Your task to perform on an android device: Search for vegetarian restaurants on Maps Image 0: 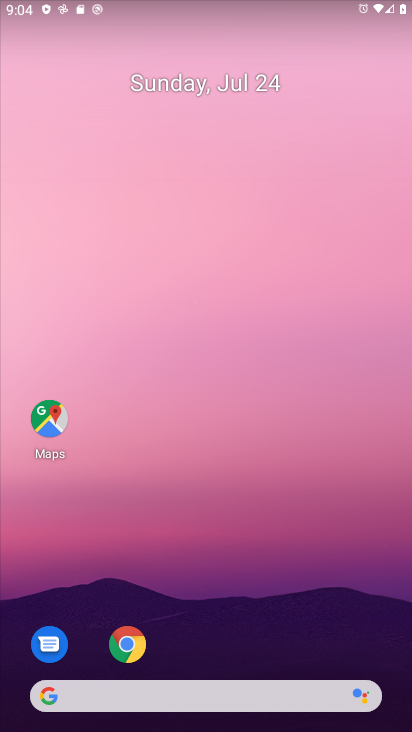
Step 0: drag from (285, 696) to (304, 195)
Your task to perform on an android device: Search for vegetarian restaurants on Maps Image 1: 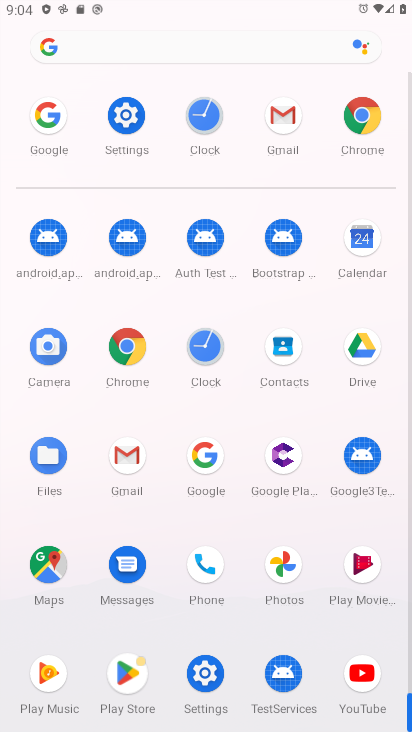
Step 1: click (61, 565)
Your task to perform on an android device: Search for vegetarian restaurants on Maps Image 2: 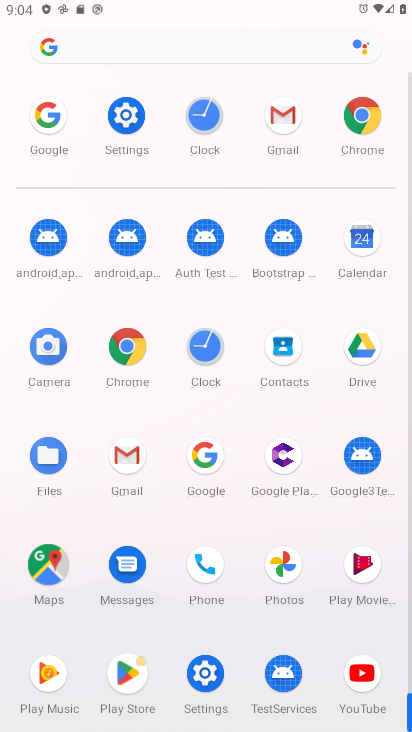
Step 2: click (60, 565)
Your task to perform on an android device: Search for vegetarian restaurants on Maps Image 3: 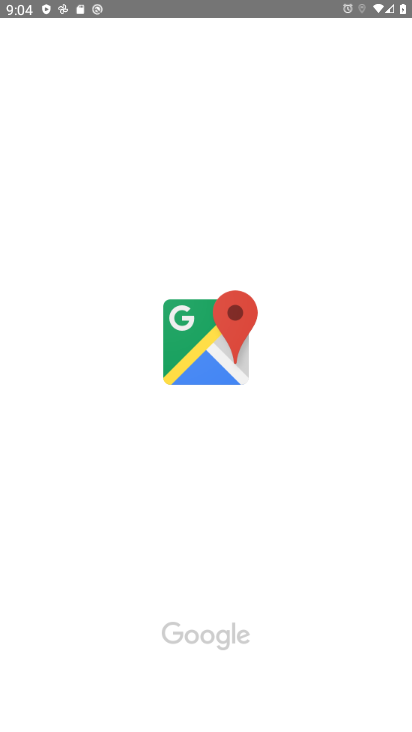
Step 3: click (58, 563)
Your task to perform on an android device: Search for vegetarian restaurants on Maps Image 4: 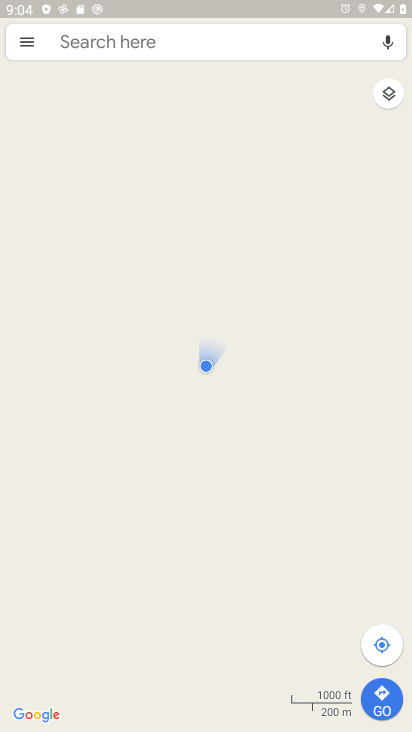
Step 4: click (70, 33)
Your task to perform on an android device: Search for vegetarian restaurants on Maps Image 5: 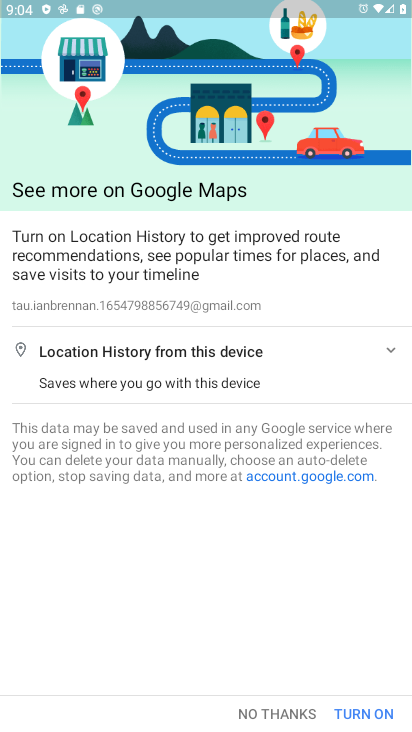
Step 5: click (277, 722)
Your task to perform on an android device: Search for vegetarian restaurants on Maps Image 6: 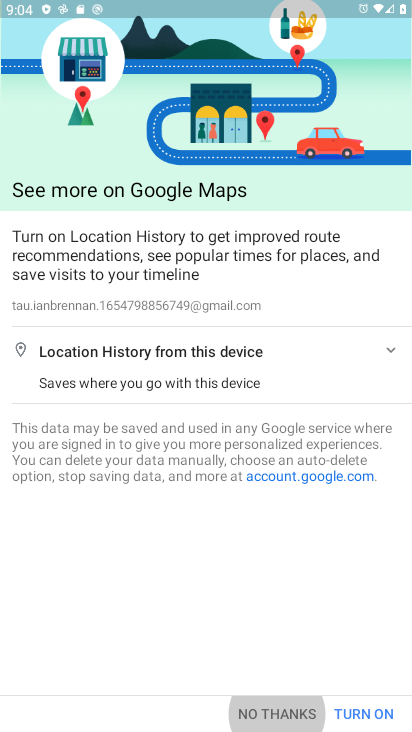
Step 6: click (289, 722)
Your task to perform on an android device: Search for vegetarian restaurants on Maps Image 7: 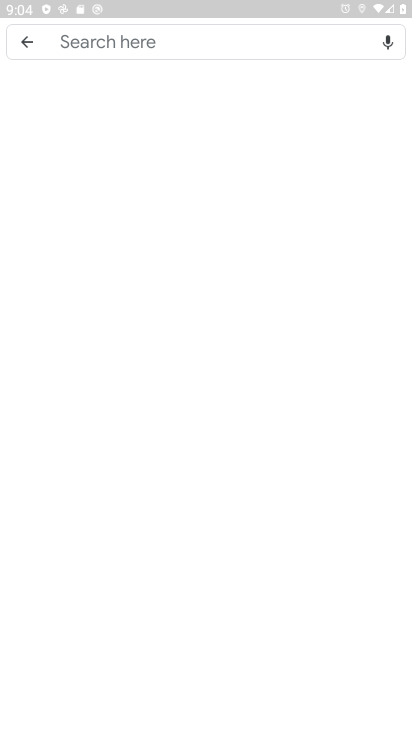
Step 7: press home button
Your task to perform on an android device: Search for vegetarian restaurants on Maps Image 8: 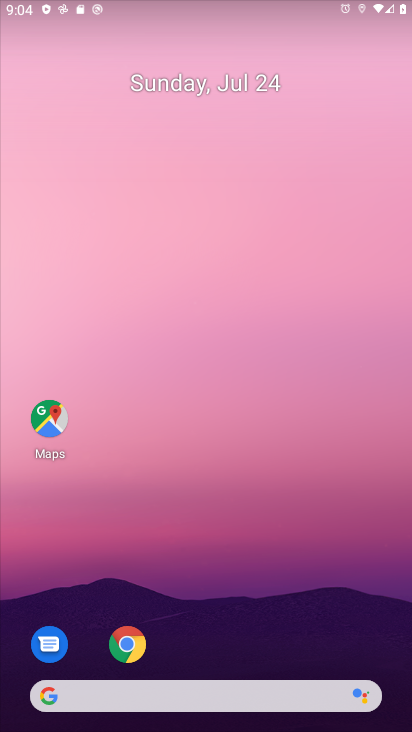
Step 8: drag from (215, 601) to (174, 249)
Your task to perform on an android device: Search for vegetarian restaurants on Maps Image 9: 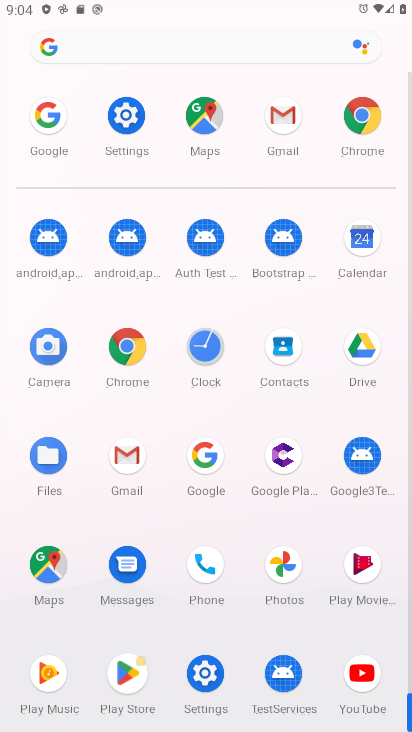
Step 9: click (199, 126)
Your task to perform on an android device: Search for vegetarian restaurants on Maps Image 10: 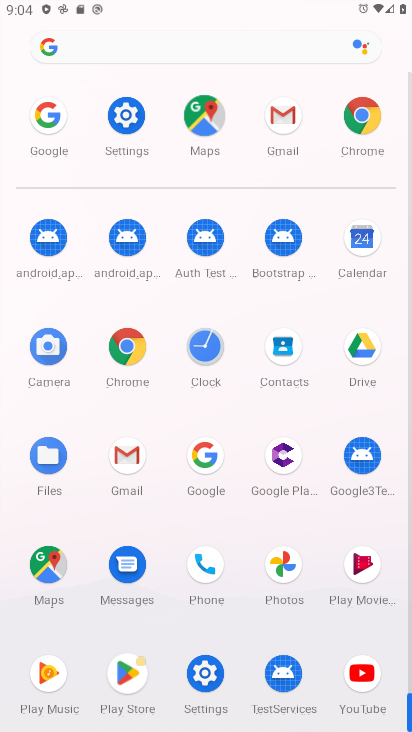
Step 10: click (198, 125)
Your task to perform on an android device: Search for vegetarian restaurants on Maps Image 11: 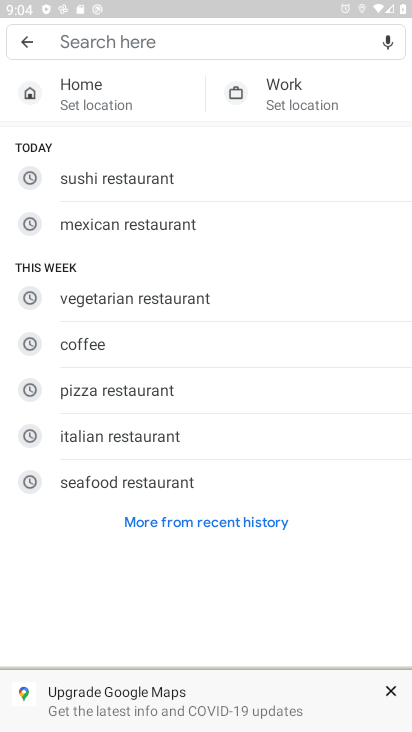
Step 11: click (209, 121)
Your task to perform on an android device: Search for vegetarian restaurants on Maps Image 12: 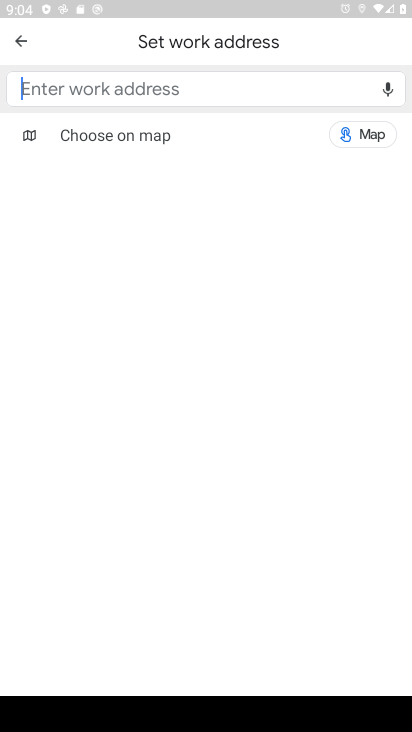
Step 12: click (24, 38)
Your task to perform on an android device: Search for vegetarian restaurants on Maps Image 13: 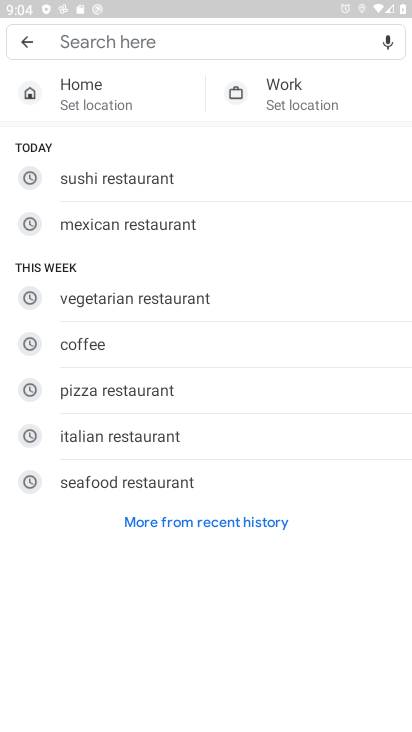
Step 13: click (145, 297)
Your task to perform on an android device: Search for vegetarian restaurants on Maps Image 14: 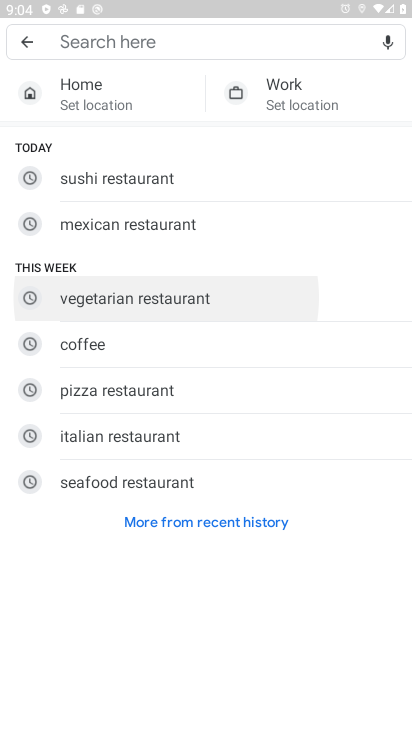
Step 14: click (145, 297)
Your task to perform on an android device: Search for vegetarian restaurants on Maps Image 15: 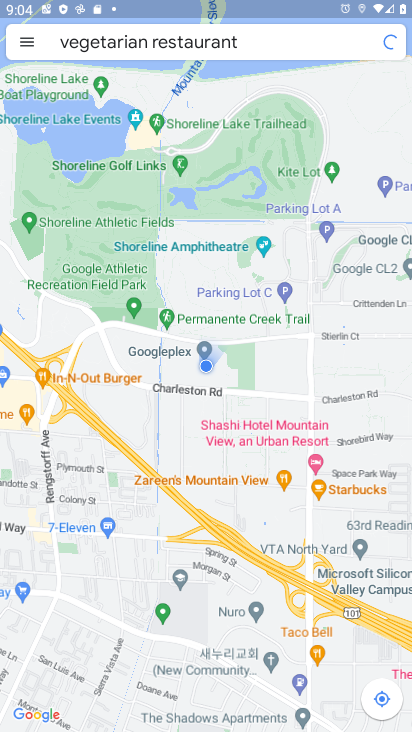
Step 15: task complete